Your task to perform on an android device: turn off airplane mode Image 0: 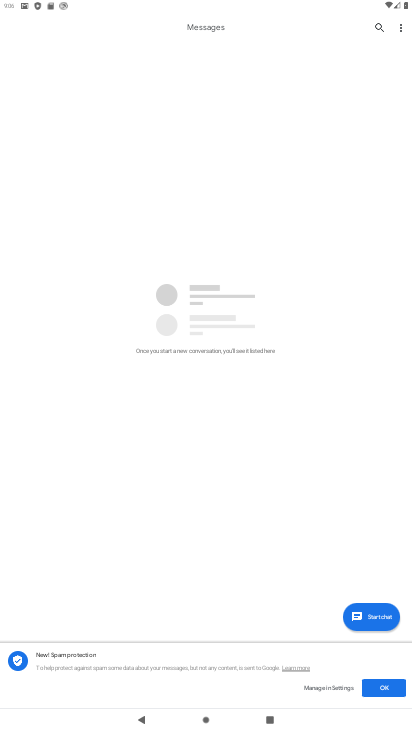
Step 0: press home button
Your task to perform on an android device: turn off airplane mode Image 1: 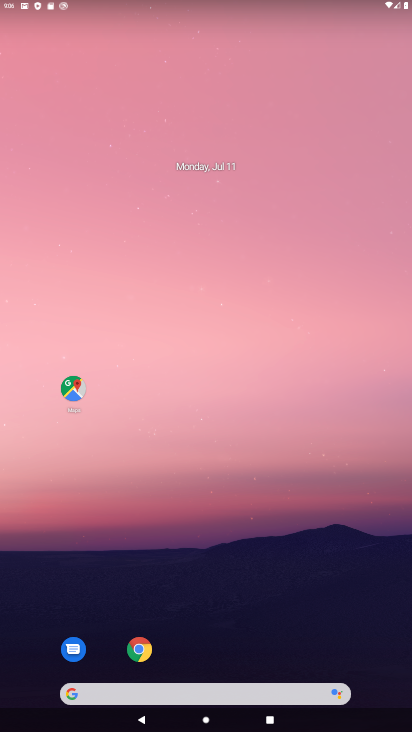
Step 1: drag from (265, 594) to (282, 6)
Your task to perform on an android device: turn off airplane mode Image 2: 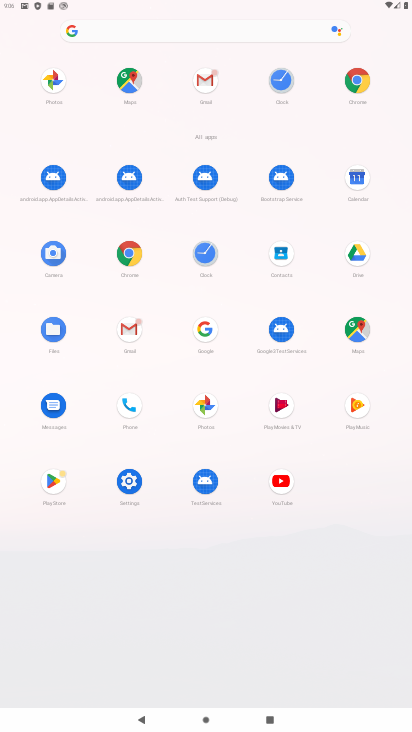
Step 2: click (119, 481)
Your task to perform on an android device: turn off airplane mode Image 3: 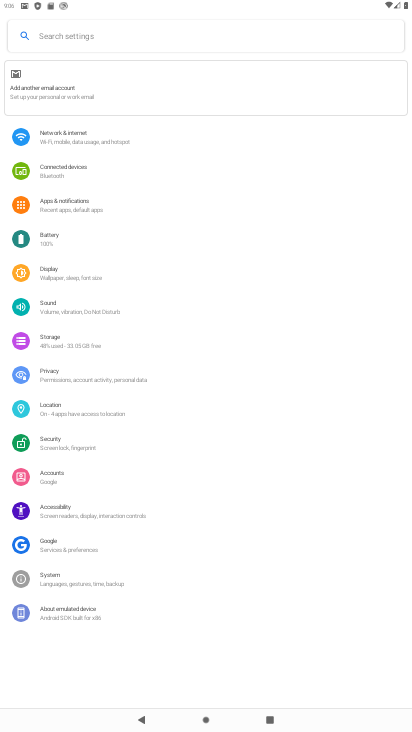
Step 3: click (83, 130)
Your task to perform on an android device: turn off airplane mode Image 4: 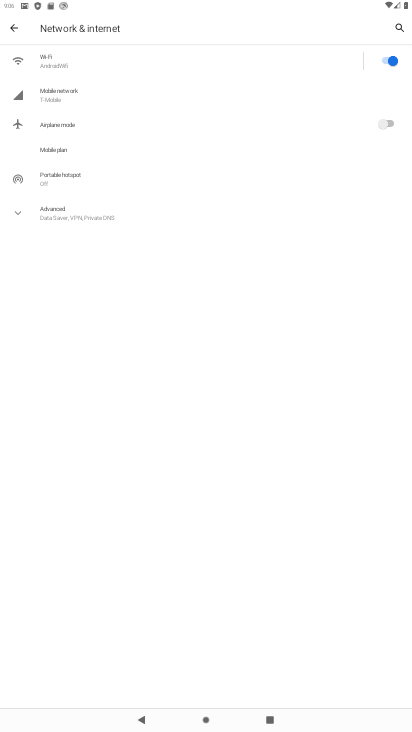
Step 4: click (72, 129)
Your task to perform on an android device: turn off airplane mode Image 5: 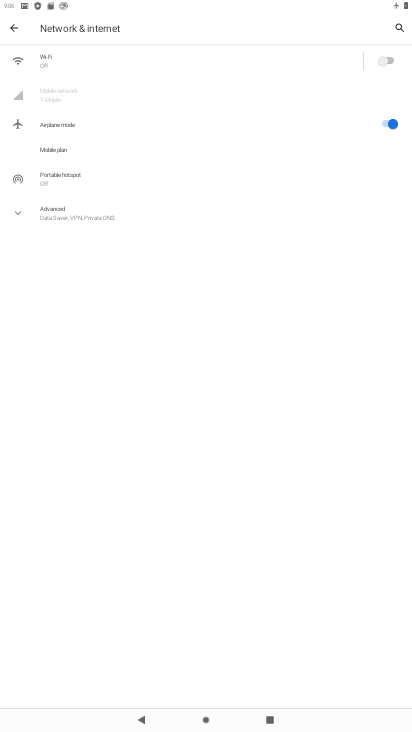
Step 5: click (72, 129)
Your task to perform on an android device: turn off airplane mode Image 6: 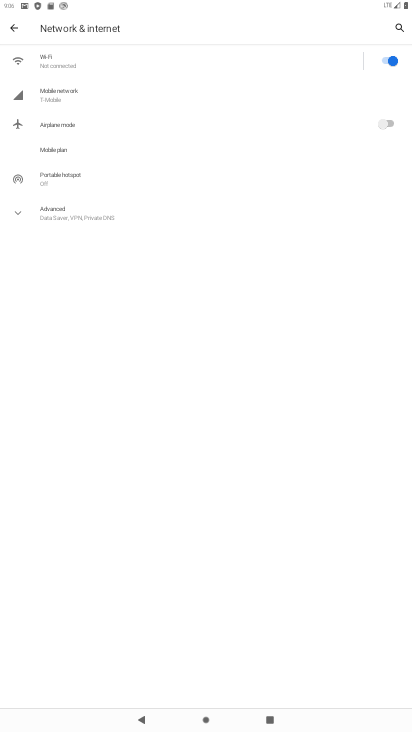
Step 6: task complete